Your task to perform on an android device: Open internet settings Image 0: 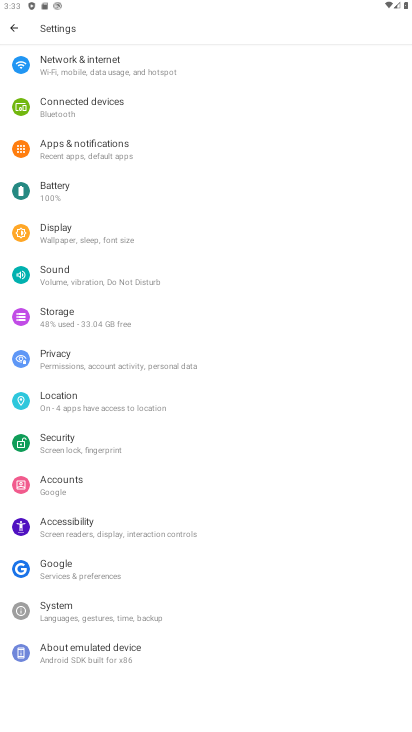
Step 0: click (131, 73)
Your task to perform on an android device: Open internet settings Image 1: 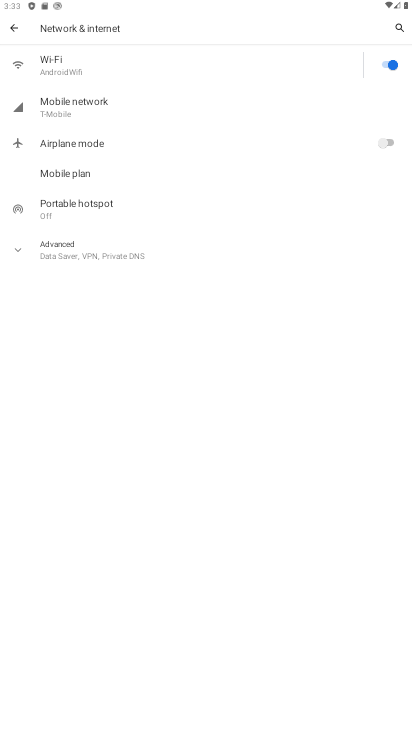
Step 1: click (89, 256)
Your task to perform on an android device: Open internet settings Image 2: 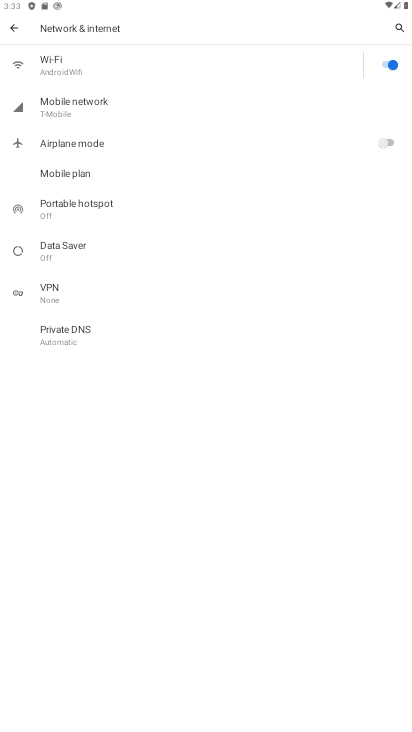
Step 2: task complete